Your task to perform on an android device: toggle notifications settings in the gmail app Image 0: 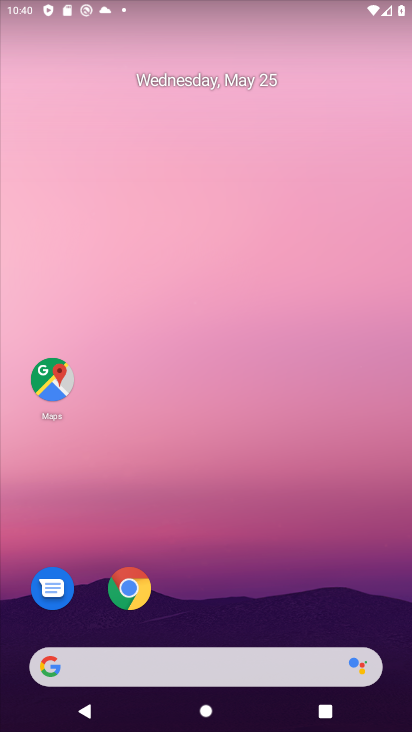
Step 0: drag from (249, 575) to (214, 87)
Your task to perform on an android device: toggle notifications settings in the gmail app Image 1: 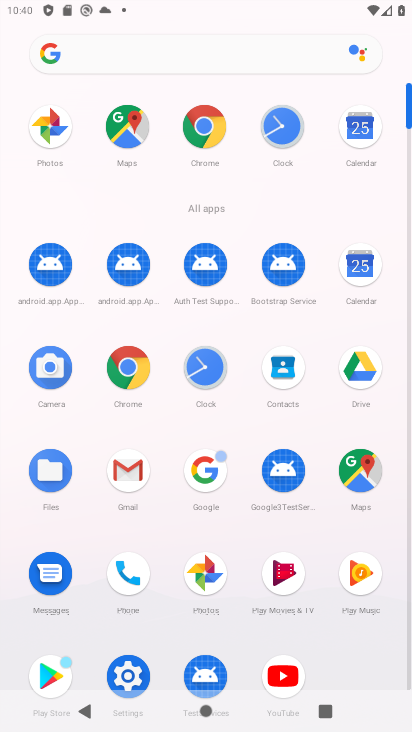
Step 1: click (127, 469)
Your task to perform on an android device: toggle notifications settings in the gmail app Image 2: 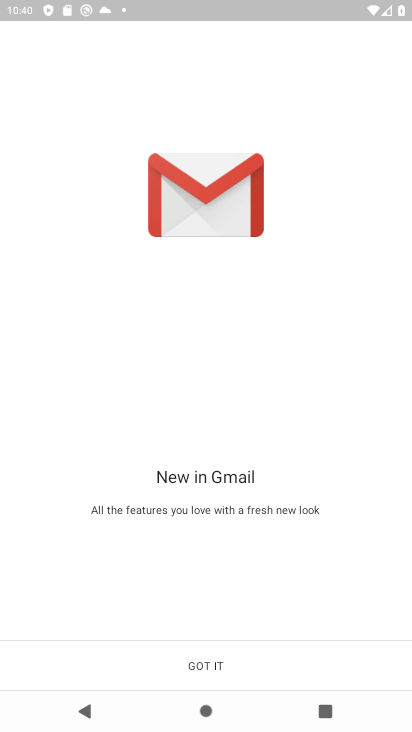
Step 2: click (204, 664)
Your task to perform on an android device: toggle notifications settings in the gmail app Image 3: 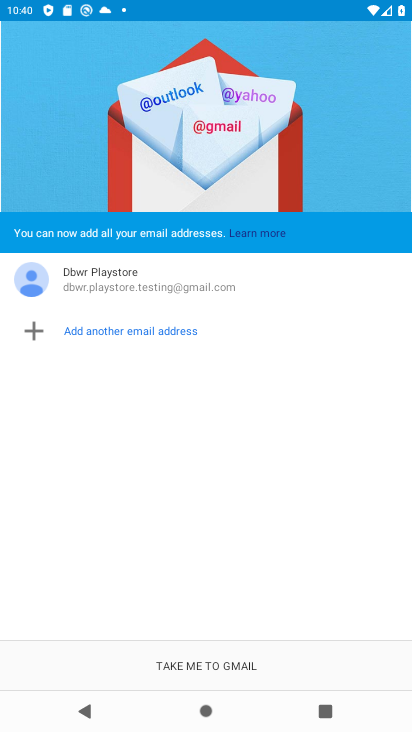
Step 3: click (204, 664)
Your task to perform on an android device: toggle notifications settings in the gmail app Image 4: 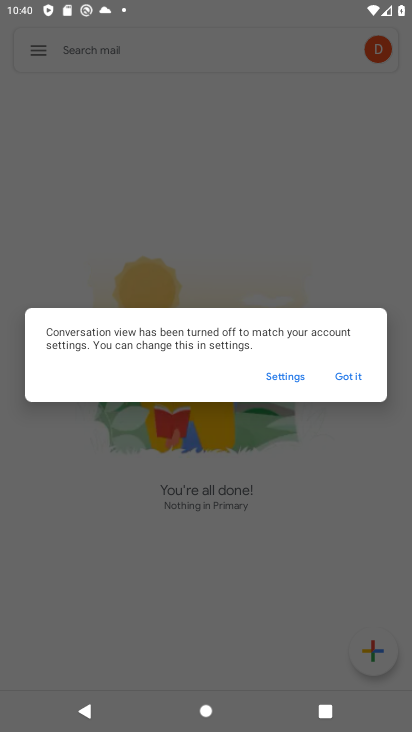
Step 4: click (350, 379)
Your task to perform on an android device: toggle notifications settings in the gmail app Image 5: 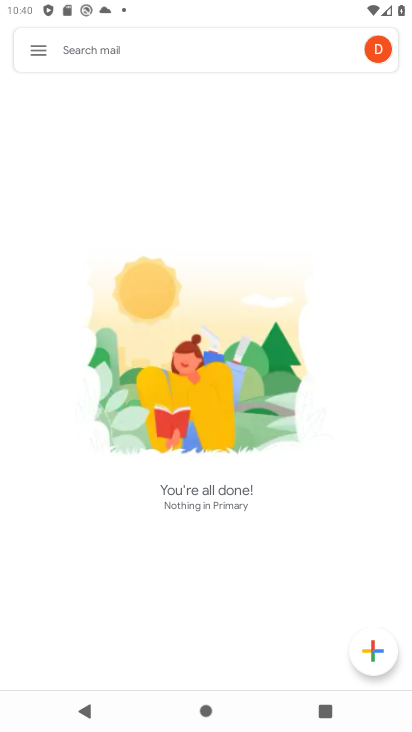
Step 5: click (39, 50)
Your task to perform on an android device: toggle notifications settings in the gmail app Image 6: 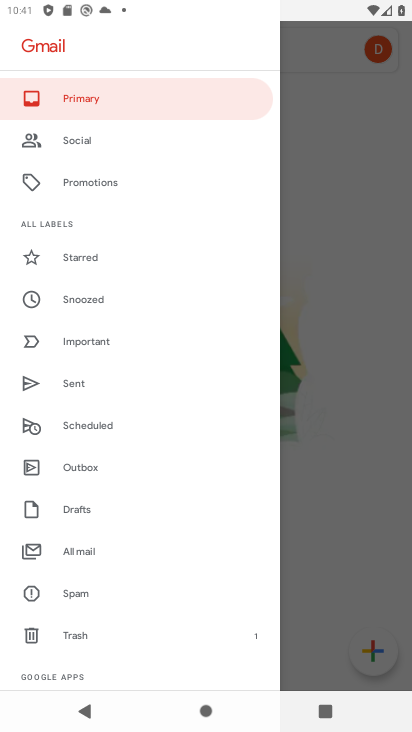
Step 6: drag from (72, 653) to (106, 561)
Your task to perform on an android device: toggle notifications settings in the gmail app Image 7: 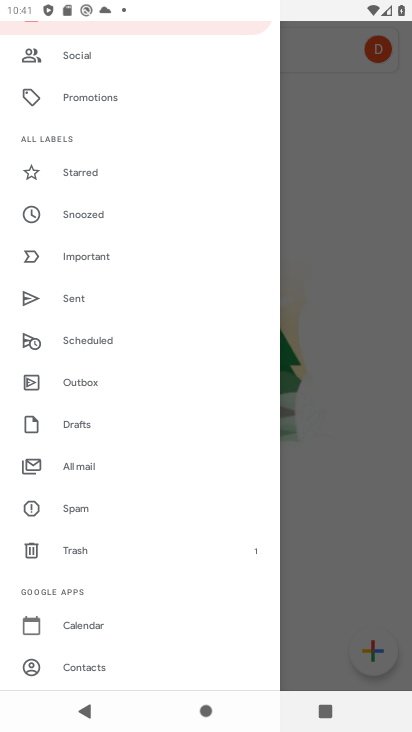
Step 7: drag from (82, 646) to (112, 549)
Your task to perform on an android device: toggle notifications settings in the gmail app Image 8: 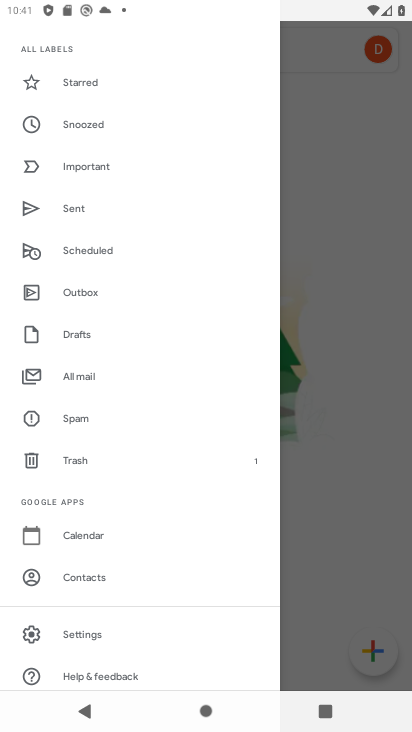
Step 8: click (78, 633)
Your task to perform on an android device: toggle notifications settings in the gmail app Image 9: 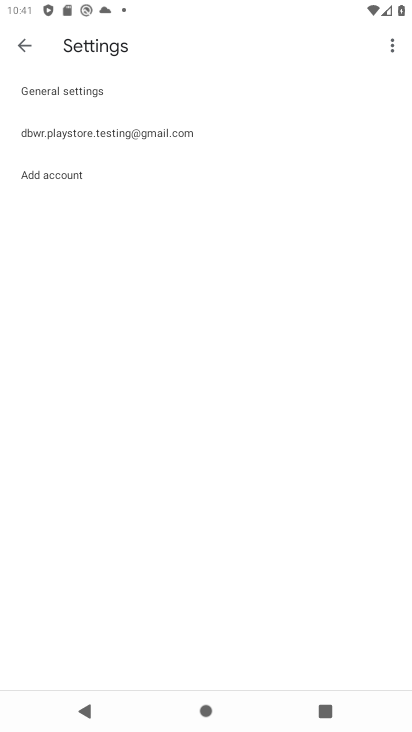
Step 9: click (134, 131)
Your task to perform on an android device: toggle notifications settings in the gmail app Image 10: 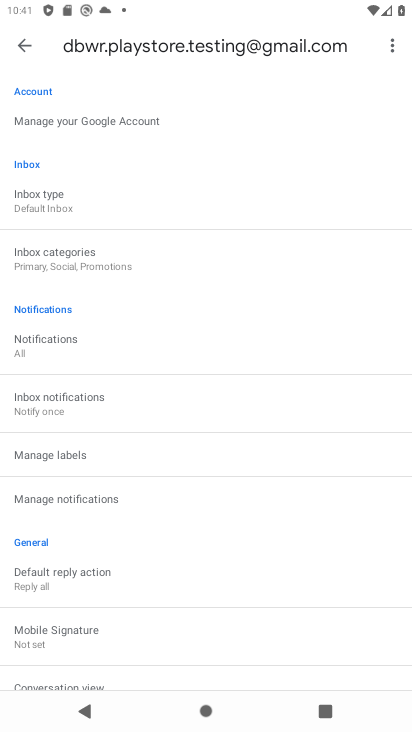
Step 10: click (74, 496)
Your task to perform on an android device: toggle notifications settings in the gmail app Image 11: 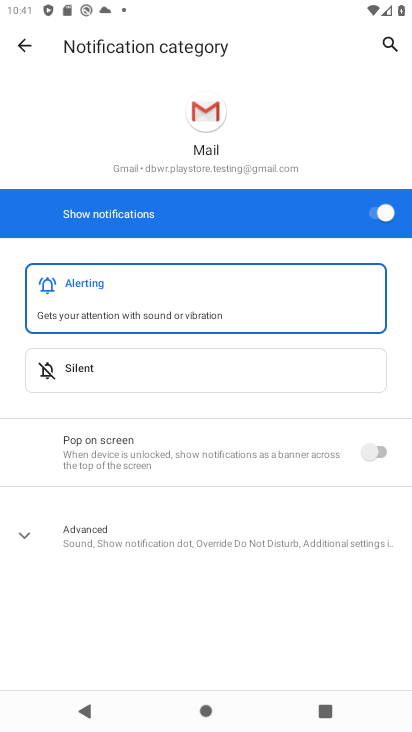
Step 11: click (379, 214)
Your task to perform on an android device: toggle notifications settings in the gmail app Image 12: 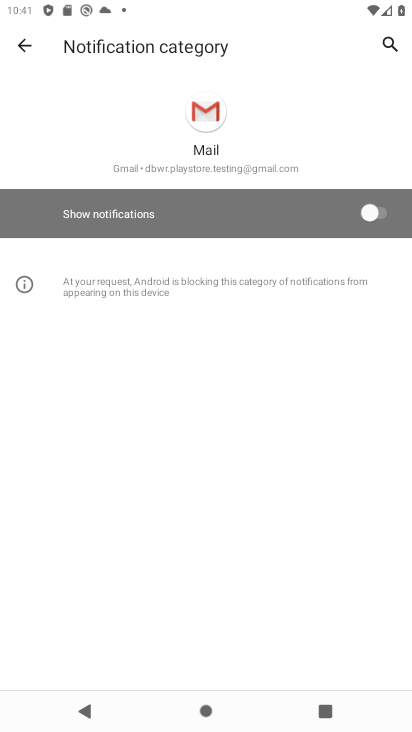
Step 12: task complete